Your task to perform on an android device: Open battery settings Image 0: 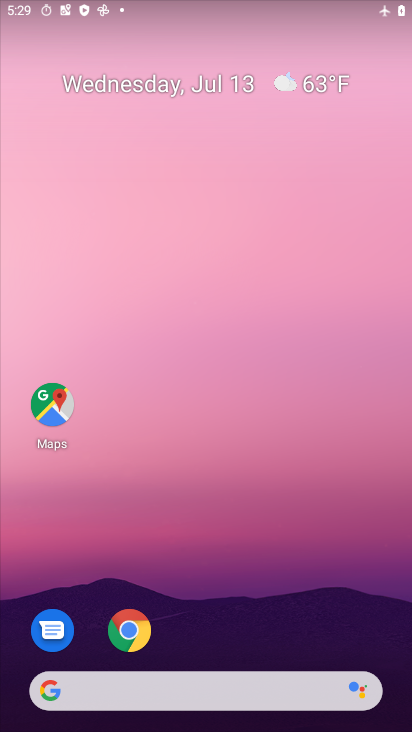
Step 0: press home button
Your task to perform on an android device: Open battery settings Image 1: 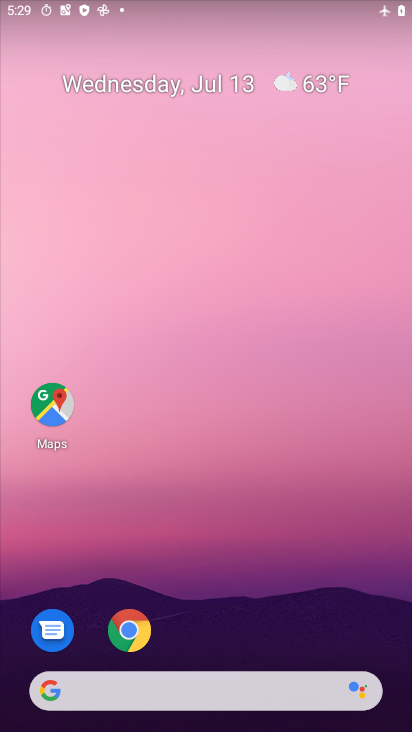
Step 1: drag from (284, 636) to (283, 176)
Your task to perform on an android device: Open battery settings Image 2: 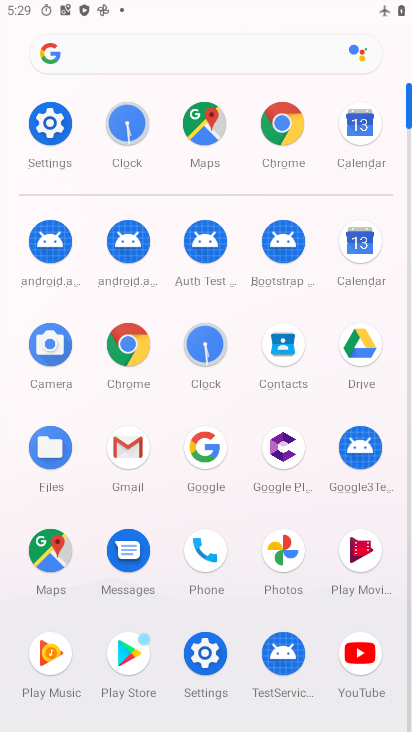
Step 2: click (40, 136)
Your task to perform on an android device: Open battery settings Image 3: 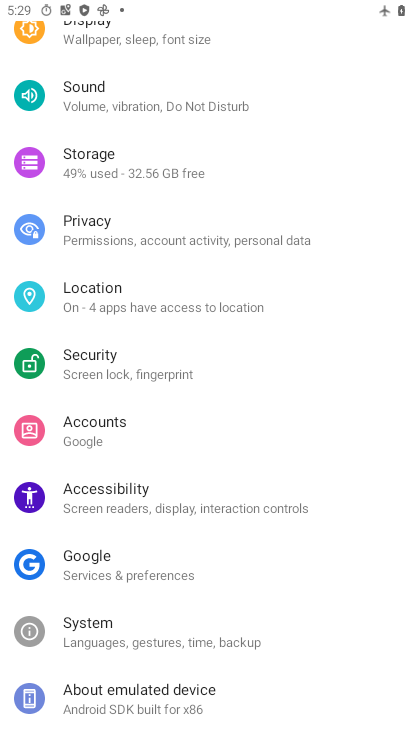
Step 3: drag from (344, 201) to (353, 587)
Your task to perform on an android device: Open battery settings Image 4: 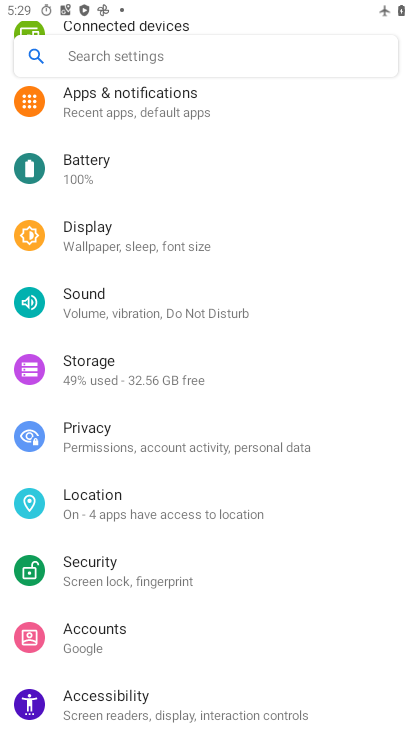
Step 4: click (89, 173)
Your task to perform on an android device: Open battery settings Image 5: 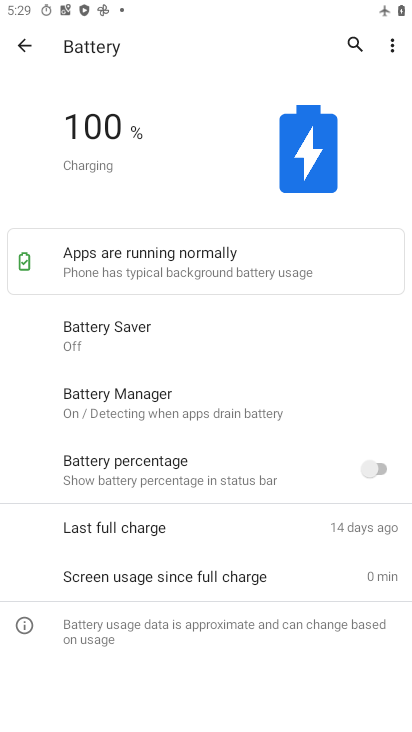
Step 5: task complete